Your task to perform on an android device: turn off priority inbox in the gmail app Image 0: 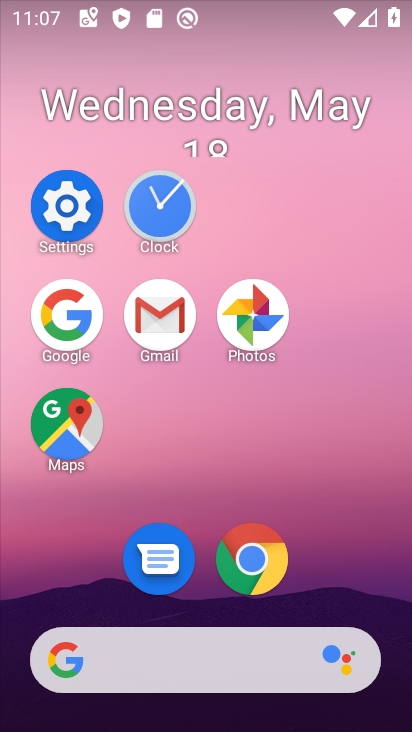
Step 0: click (156, 308)
Your task to perform on an android device: turn off priority inbox in the gmail app Image 1: 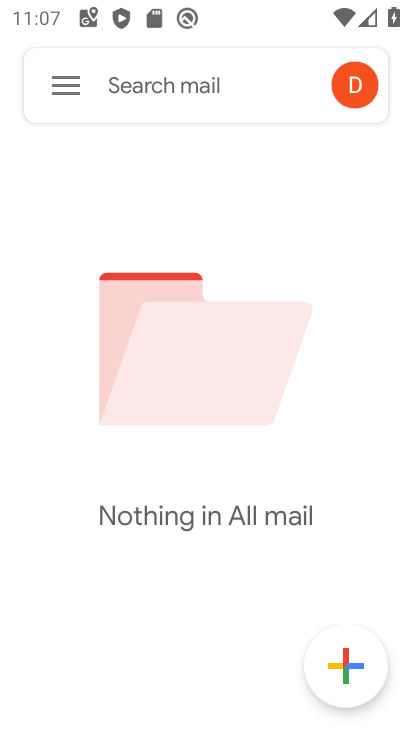
Step 1: click (58, 103)
Your task to perform on an android device: turn off priority inbox in the gmail app Image 2: 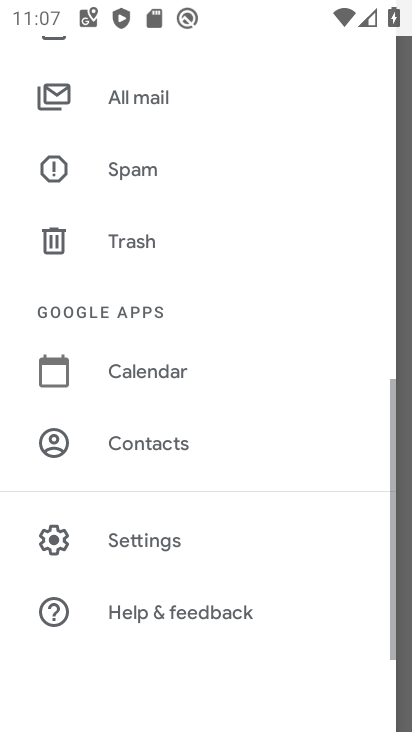
Step 2: click (156, 538)
Your task to perform on an android device: turn off priority inbox in the gmail app Image 3: 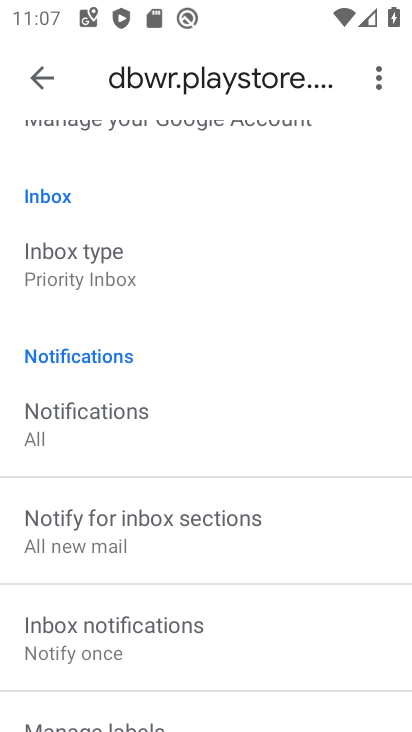
Step 3: click (173, 290)
Your task to perform on an android device: turn off priority inbox in the gmail app Image 4: 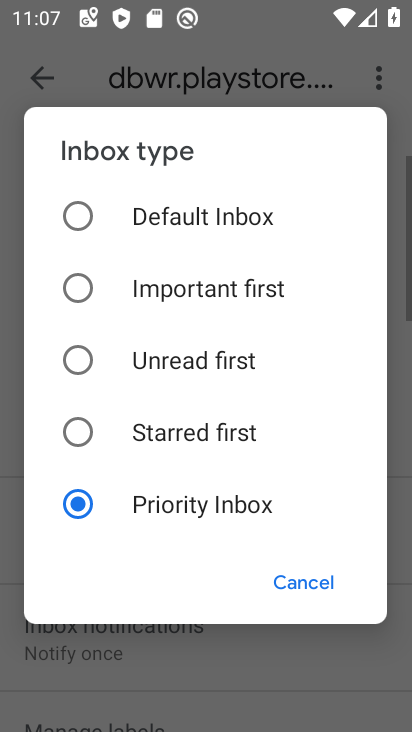
Step 4: click (207, 213)
Your task to perform on an android device: turn off priority inbox in the gmail app Image 5: 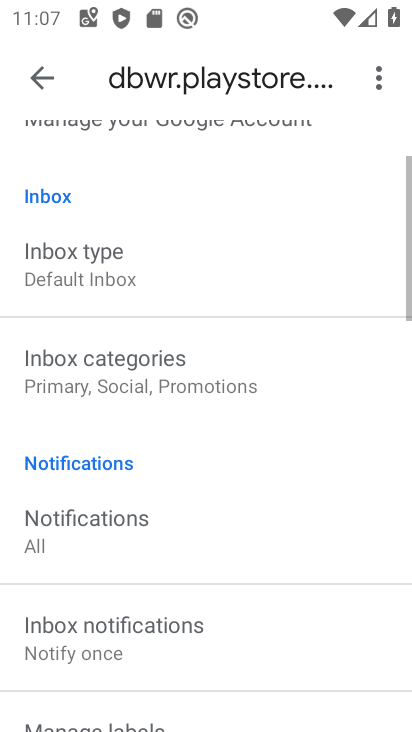
Step 5: task complete